Your task to perform on an android device: Play the last video I watched on Youtube Image 0: 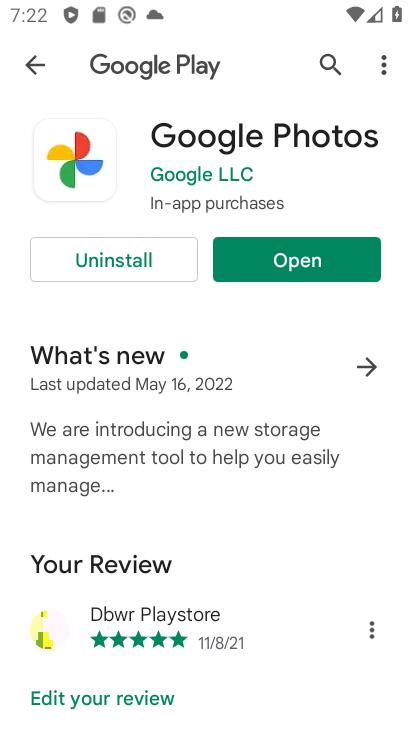
Step 0: press home button
Your task to perform on an android device: Play the last video I watched on Youtube Image 1: 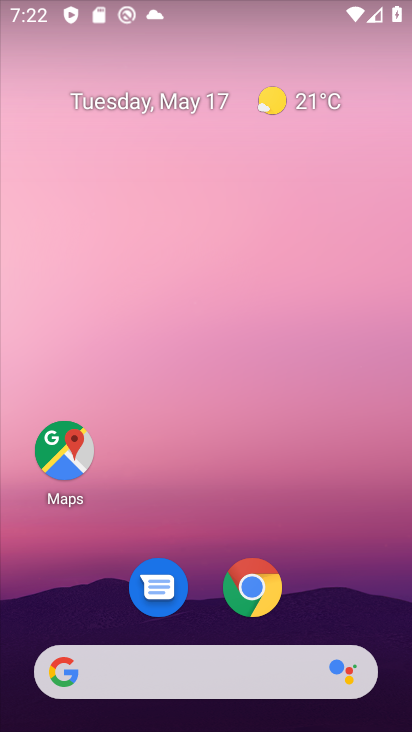
Step 1: drag from (351, 539) to (367, 102)
Your task to perform on an android device: Play the last video I watched on Youtube Image 2: 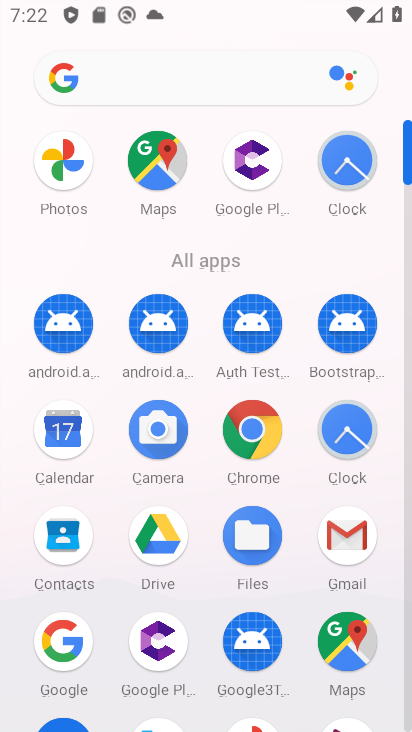
Step 2: drag from (387, 559) to (396, 347)
Your task to perform on an android device: Play the last video I watched on Youtube Image 3: 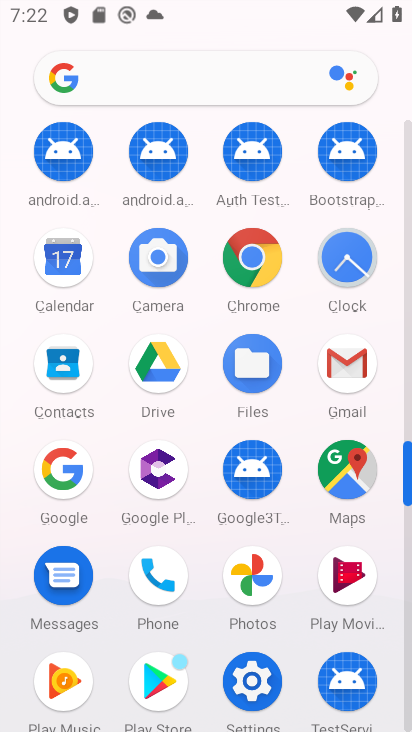
Step 3: drag from (393, 595) to (397, 383)
Your task to perform on an android device: Play the last video I watched on Youtube Image 4: 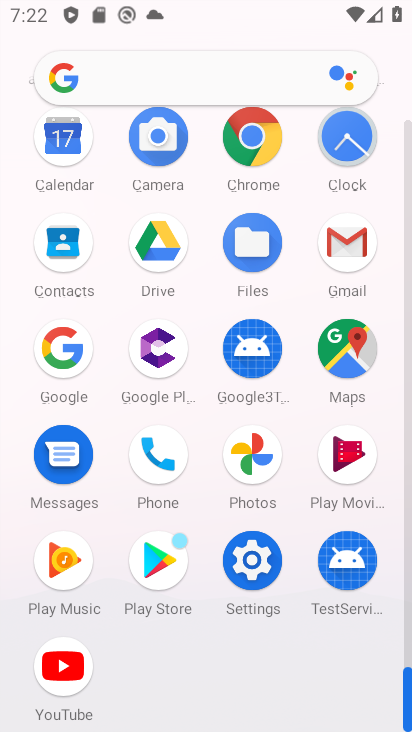
Step 4: click (63, 685)
Your task to perform on an android device: Play the last video I watched on Youtube Image 5: 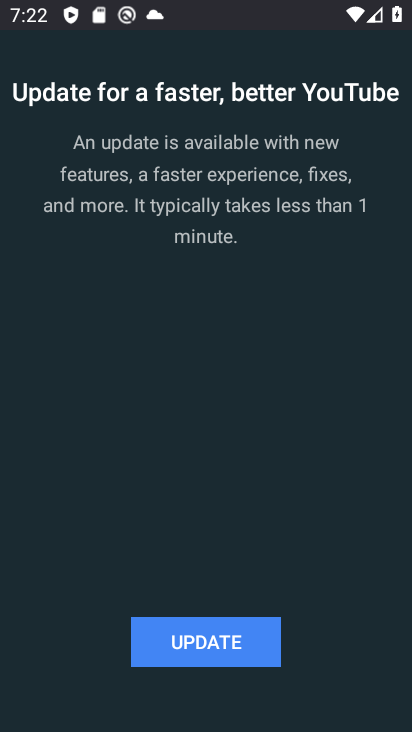
Step 5: click (281, 651)
Your task to perform on an android device: Play the last video I watched on Youtube Image 6: 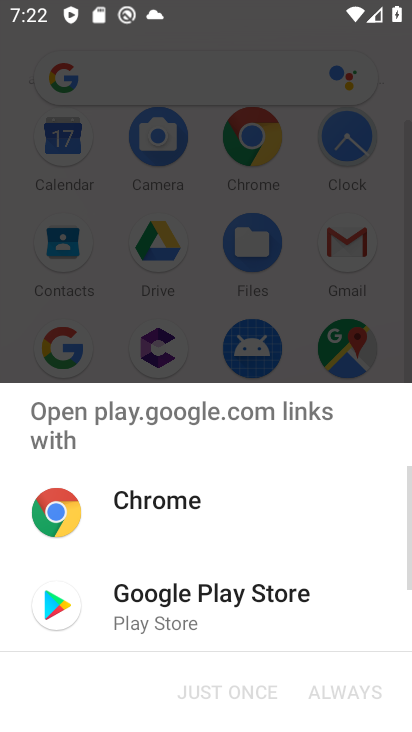
Step 6: click (209, 610)
Your task to perform on an android device: Play the last video I watched on Youtube Image 7: 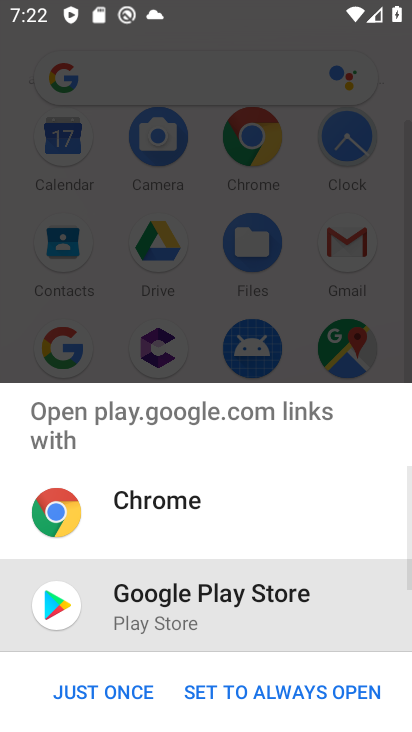
Step 7: click (120, 685)
Your task to perform on an android device: Play the last video I watched on Youtube Image 8: 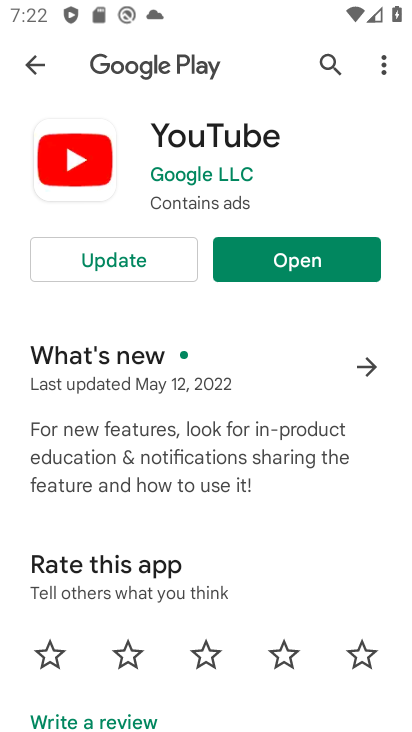
Step 8: click (149, 258)
Your task to perform on an android device: Play the last video I watched on Youtube Image 9: 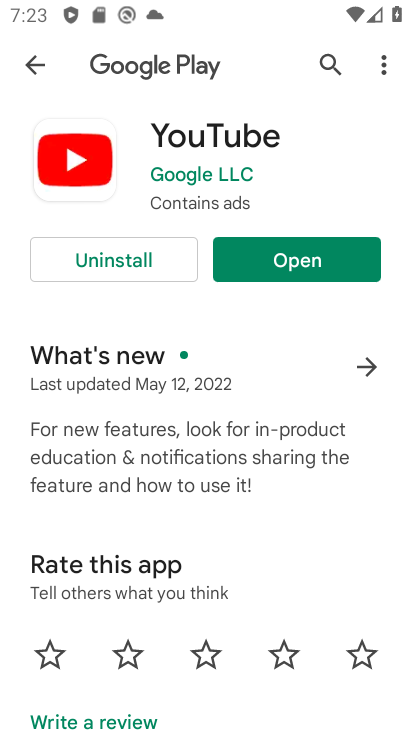
Step 9: click (339, 272)
Your task to perform on an android device: Play the last video I watched on Youtube Image 10: 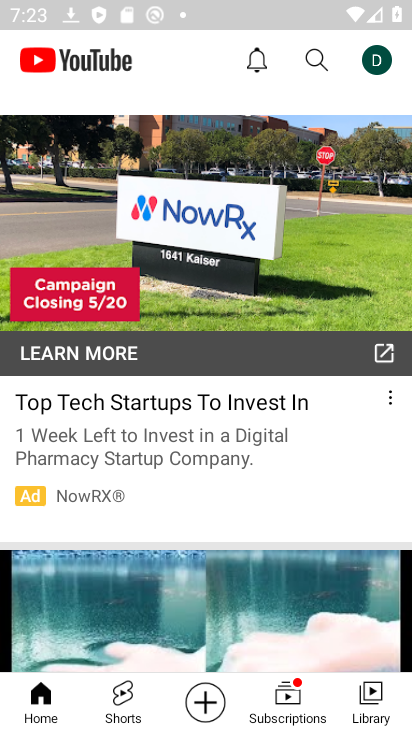
Step 10: click (371, 708)
Your task to perform on an android device: Play the last video I watched on Youtube Image 11: 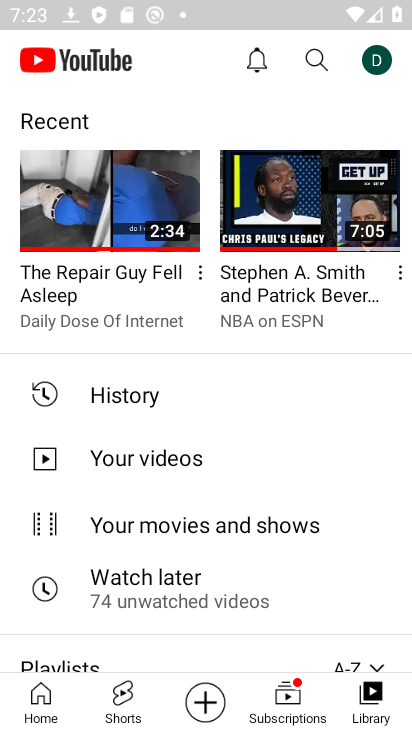
Step 11: click (100, 189)
Your task to perform on an android device: Play the last video I watched on Youtube Image 12: 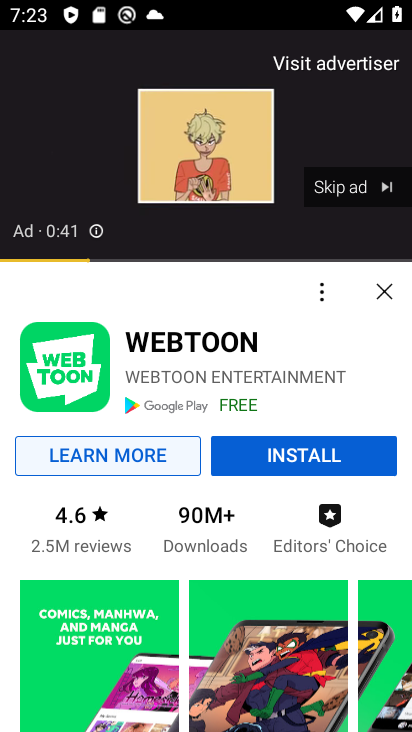
Step 12: task complete